Your task to perform on an android device: Open ESPN.com Image 0: 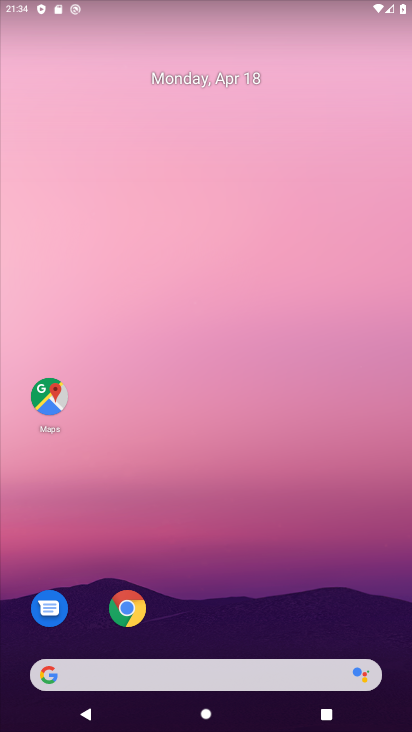
Step 0: click (241, 145)
Your task to perform on an android device: Open ESPN.com Image 1: 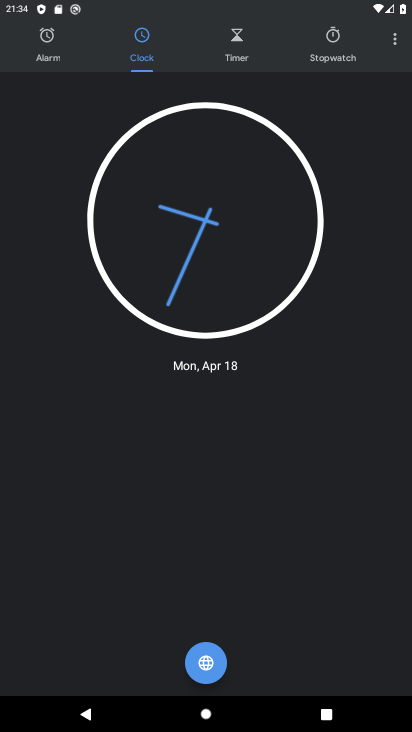
Step 1: press home button
Your task to perform on an android device: Open ESPN.com Image 2: 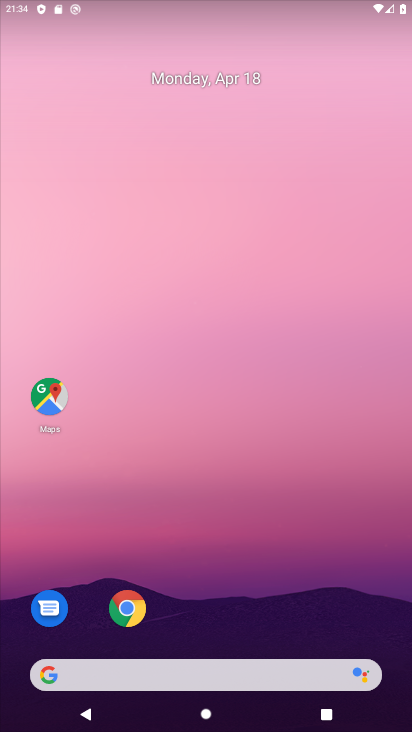
Step 2: drag from (193, 474) to (185, 130)
Your task to perform on an android device: Open ESPN.com Image 3: 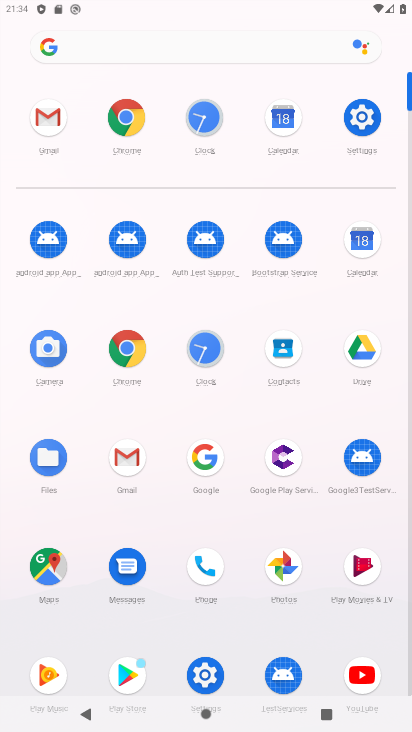
Step 3: drag from (176, 433) to (174, 232)
Your task to perform on an android device: Open ESPN.com Image 4: 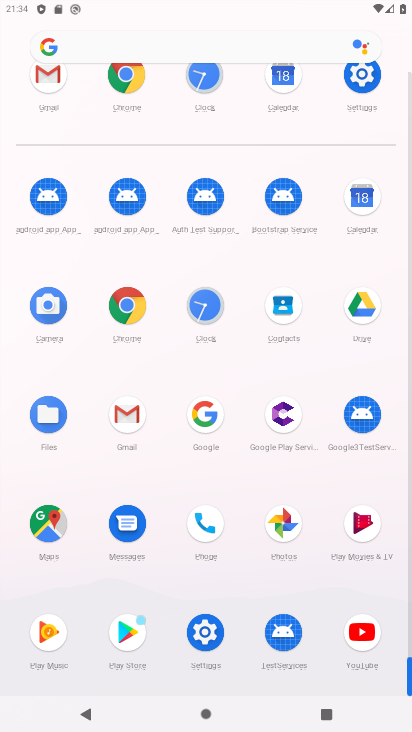
Step 4: click (209, 406)
Your task to perform on an android device: Open ESPN.com Image 5: 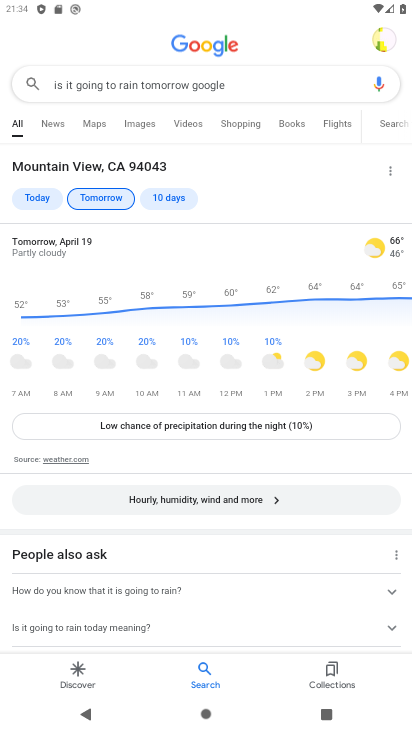
Step 5: click (240, 90)
Your task to perform on an android device: Open ESPN.com Image 6: 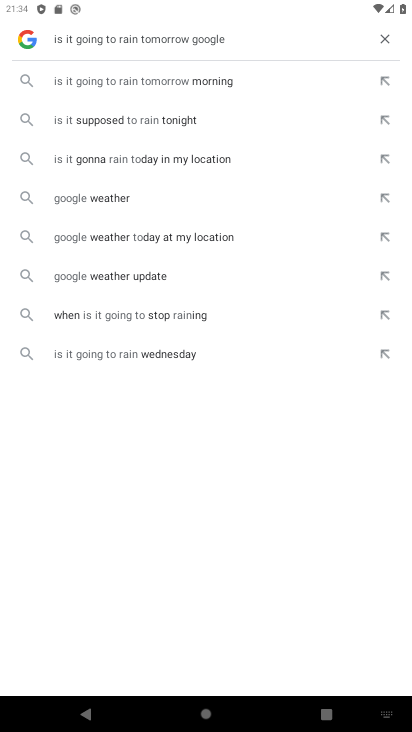
Step 6: click (384, 41)
Your task to perform on an android device: Open ESPN.com Image 7: 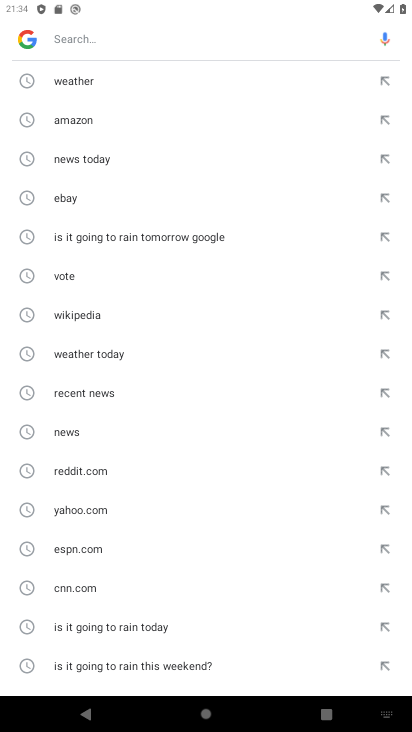
Step 7: click (76, 550)
Your task to perform on an android device: Open ESPN.com Image 8: 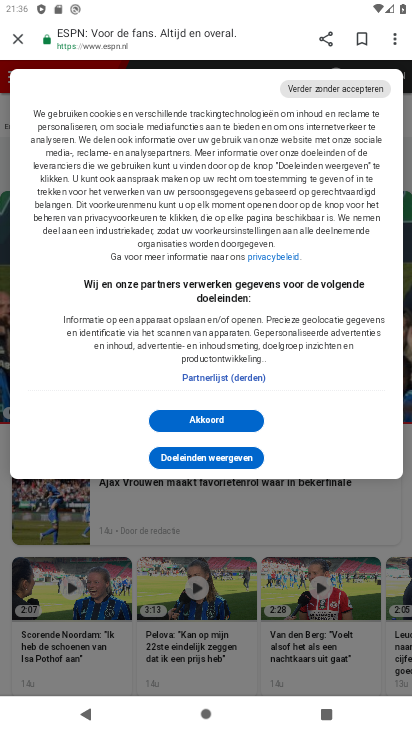
Step 8: task complete